Your task to perform on an android device: Turn on the flashlight Image 0: 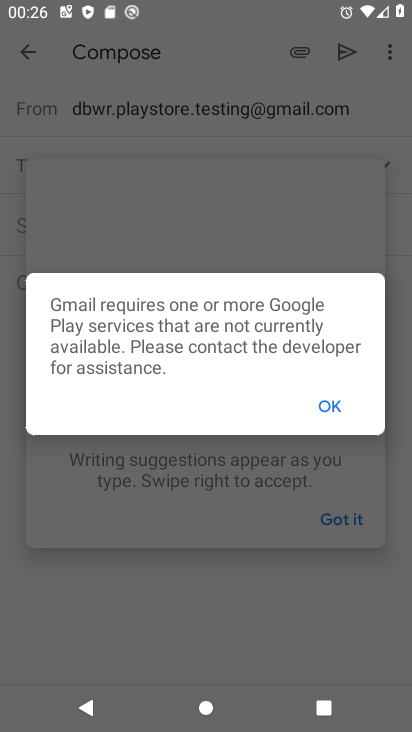
Step 0: press home button
Your task to perform on an android device: Turn on the flashlight Image 1: 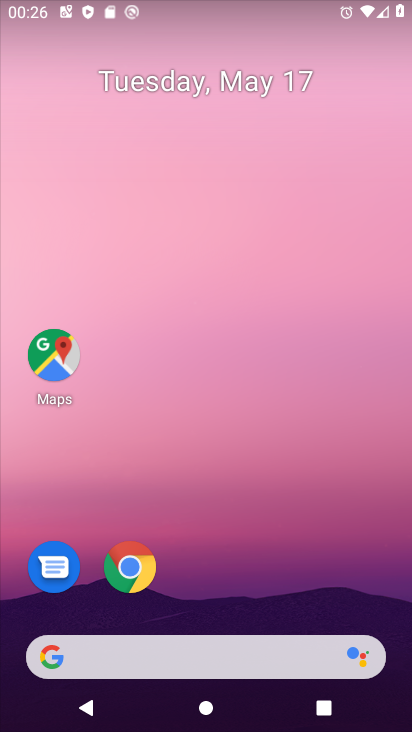
Step 1: drag from (234, 477) to (176, 76)
Your task to perform on an android device: Turn on the flashlight Image 2: 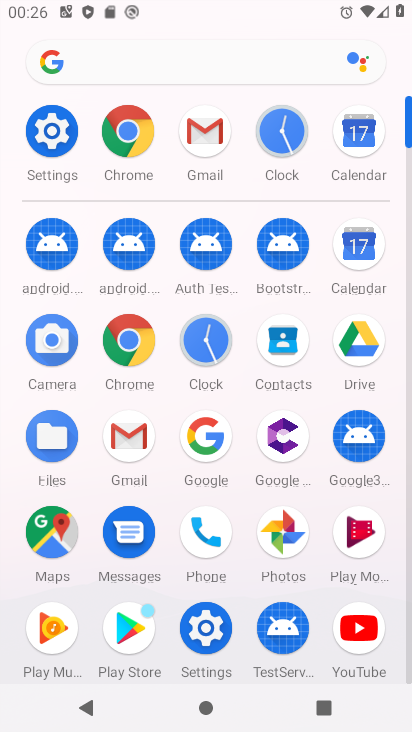
Step 2: click (46, 133)
Your task to perform on an android device: Turn on the flashlight Image 3: 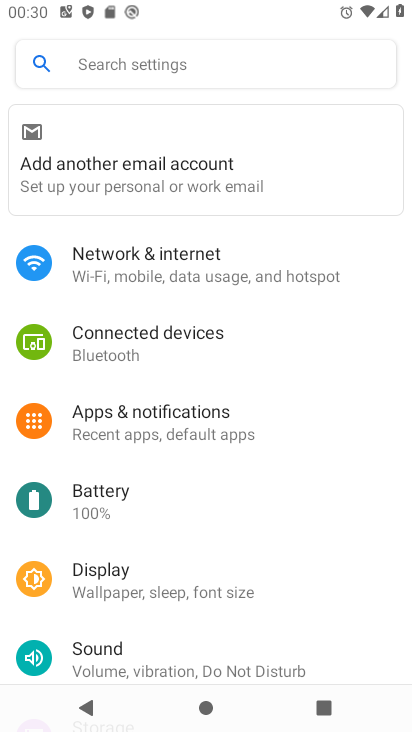
Step 3: click (148, 408)
Your task to perform on an android device: Turn on the flashlight Image 4: 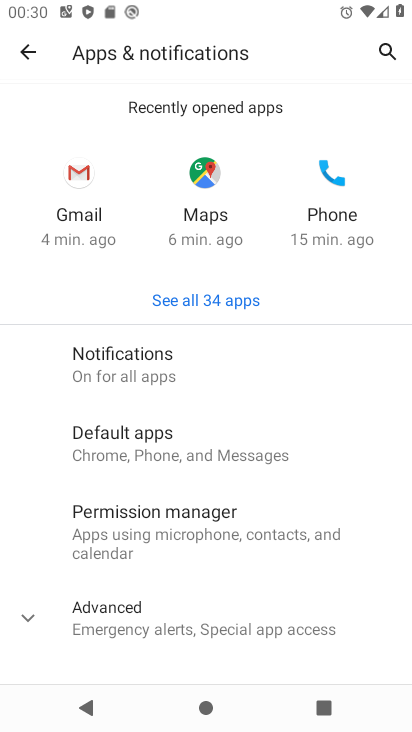
Step 4: task complete